Your task to perform on an android device: change your default location settings in chrome Image 0: 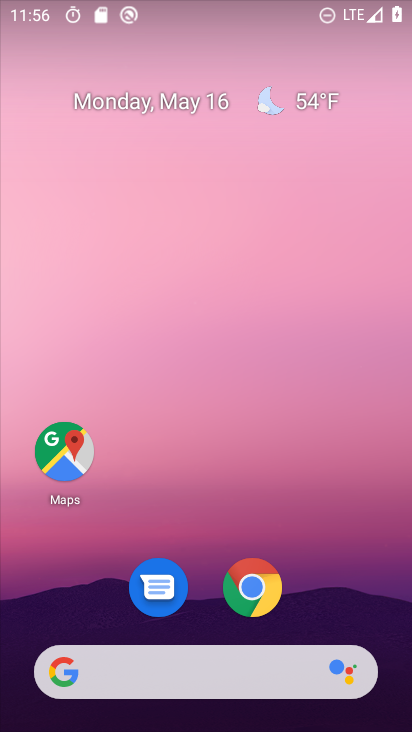
Step 0: click (234, 591)
Your task to perform on an android device: change your default location settings in chrome Image 1: 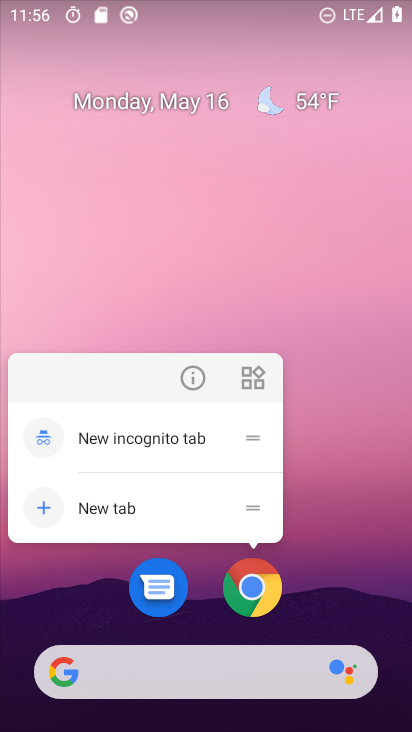
Step 1: click (205, 368)
Your task to perform on an android device: change your default location settings in chrome Image 2: 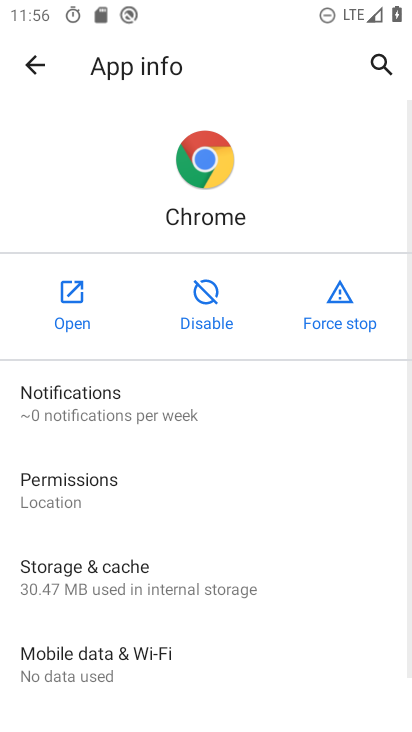
Step 2: click (99, 307)
Your task to perform on an android device: change your default location settings in chrome Image 3: 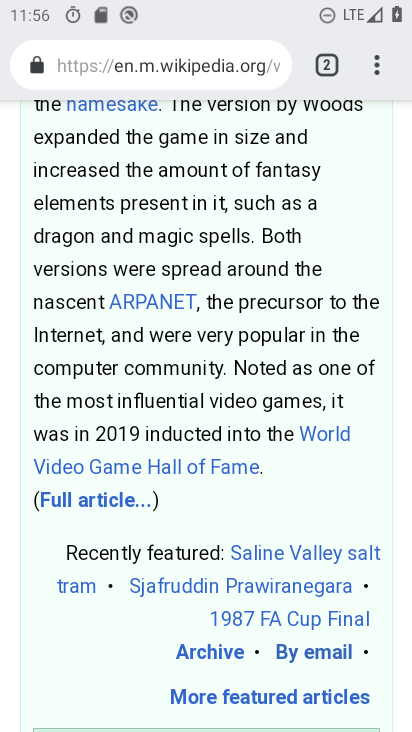
Step 3: drag from (224, 196) to (299, 701)
Your task to perform on an android device: change your default location settings in chrome Image 4: 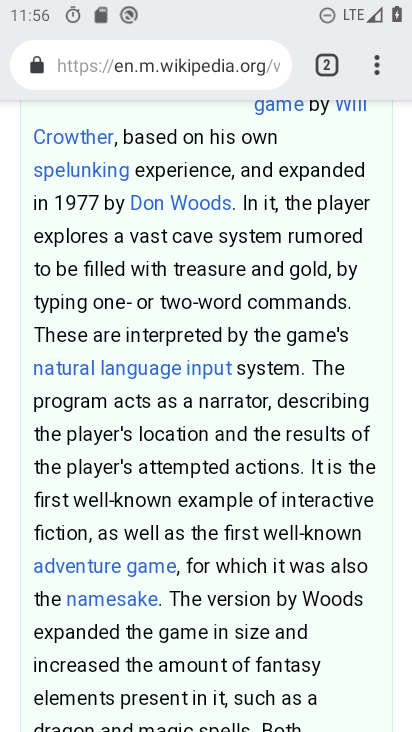
Step 4: drag from (264, 586) to (274, 273)
Your task to perform on an android device: change your default location settings in chrome Image 5: 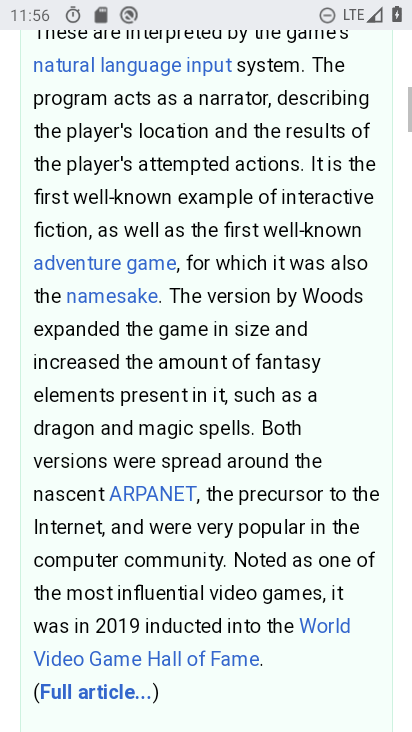
Step 5: drag from (273, 262) to (312, 706)
Your task to perform on an android device: change your default location settings in chrome Image 6: 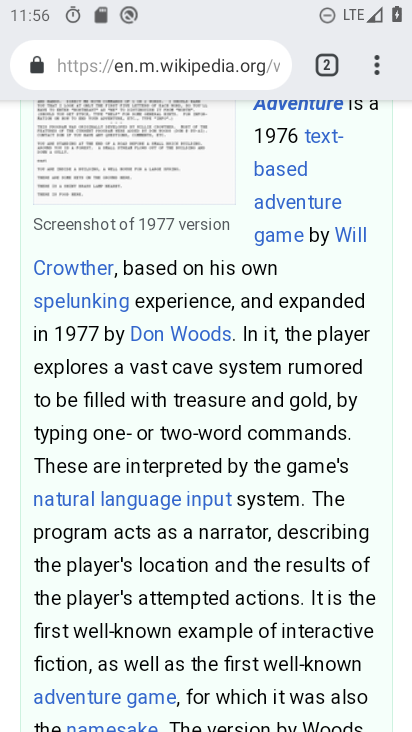
Step 6: drag from (246, 296) to (367, 707)
Your task to perform on an android device: change your default location settings in chrome Image 7: 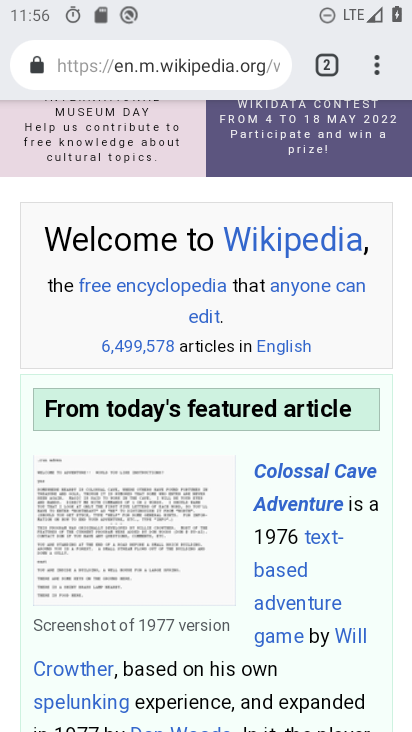
Step 7: click (380, 62)
Your task to perform on an android device: change your default location settings in chrome Image 8: 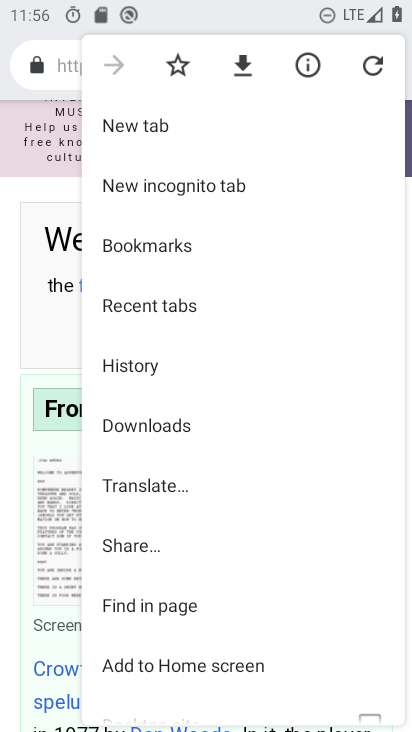
Step 8: drag from (225, 594) to (273, 56)
Your task to perform on an android device: change your default location settings in chrome Image 9: 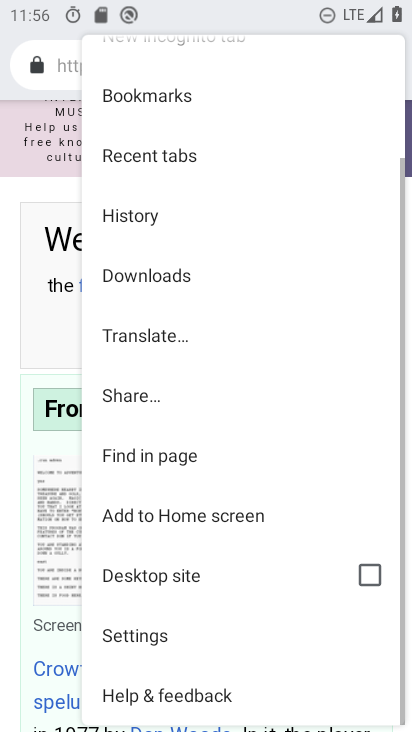
Step 9: drag from (231, 564) to (253, 363)
Your task to perform on an android device: change your default location settings in chrome Image 10: 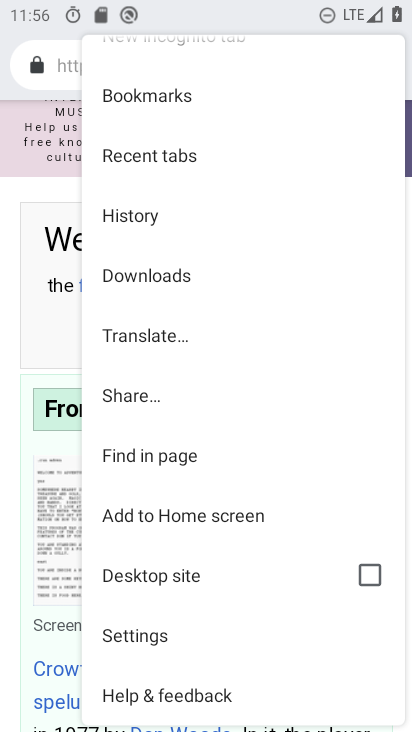
Step 10: click (158, 631)
Your task to perform on an android device: change your default location settings in chrome Image 11: 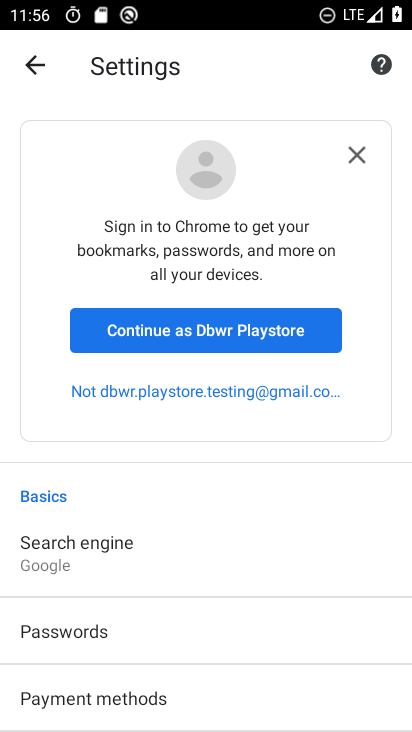
Step 11: drag from (159, 649) to (303, 181)
Your task to perform on an android device: change your default location settings in chrome Image 12: 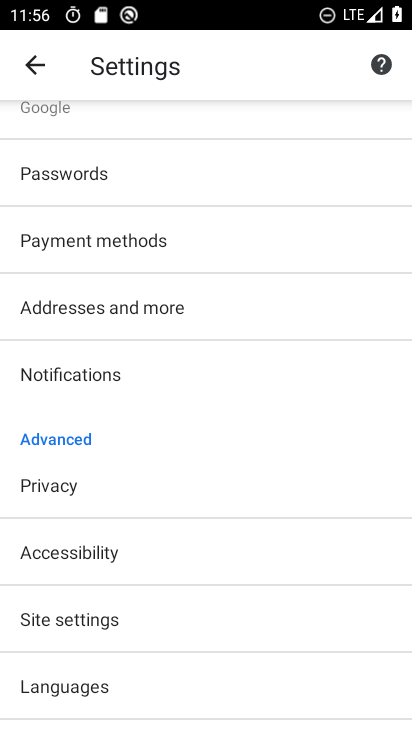
Step 12: click (137, 620)
Your task to perform on an android device: change your default location settings in chrome Image 13: 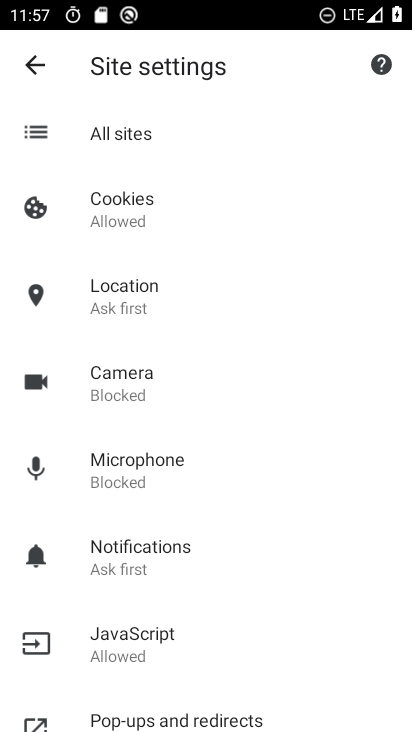
Step 13: click (153, 312)
Your task to perform on an android device: change your default location settings in chrome Image 14: 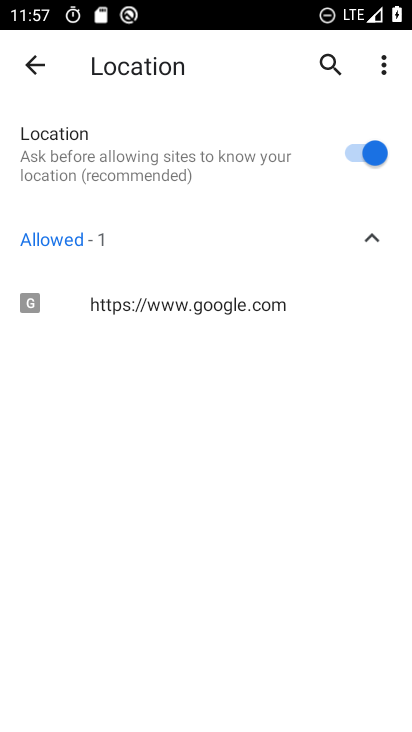
Step 14: click (370, 152)
Your task to perform on an android device: change your default location settings in chrome Image 15: 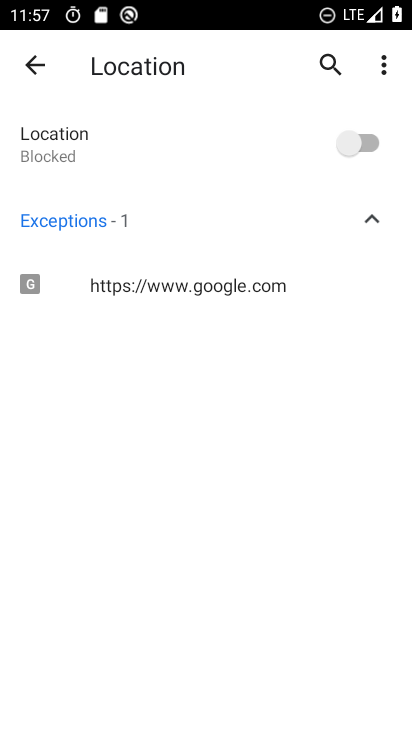
Step 15: task complete